Your task to perform on an android device: open sync settings in chrome Image 0: 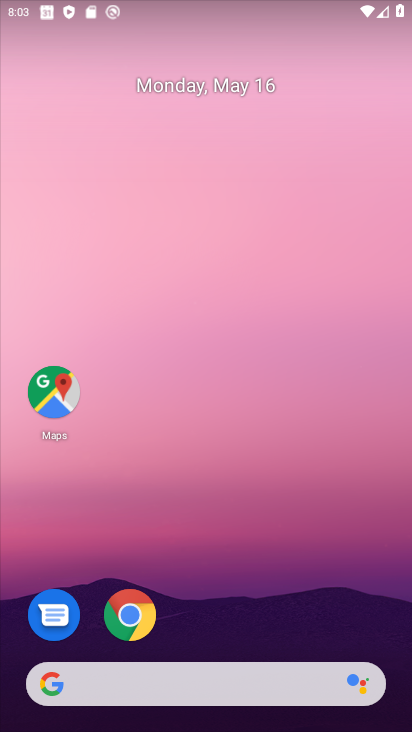
Step 0: drag from (222, 597) to (217, 90)
Your task to perform on an android device: open sync settings in chrome Image 1: 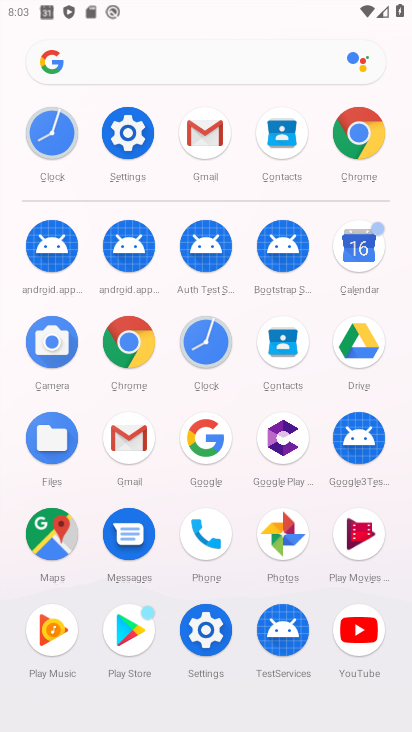
Step 1: click (356, 161)
Your task to perform on an android device: open sync settings in chrome Image 2: 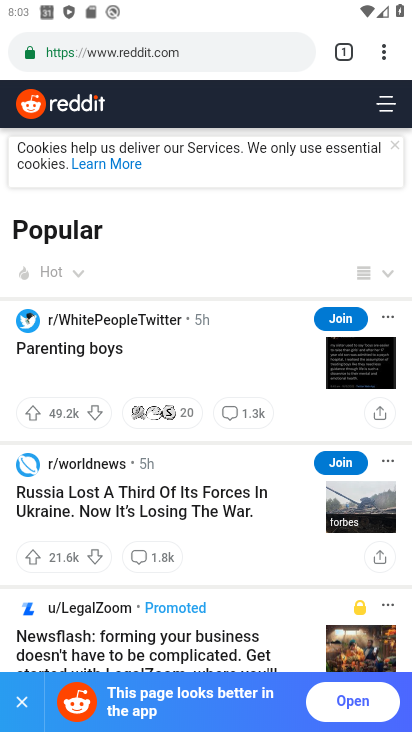
Step 2: click (380, 60)
Your task to perform on an android device: open sync settings in chrome Image 3: 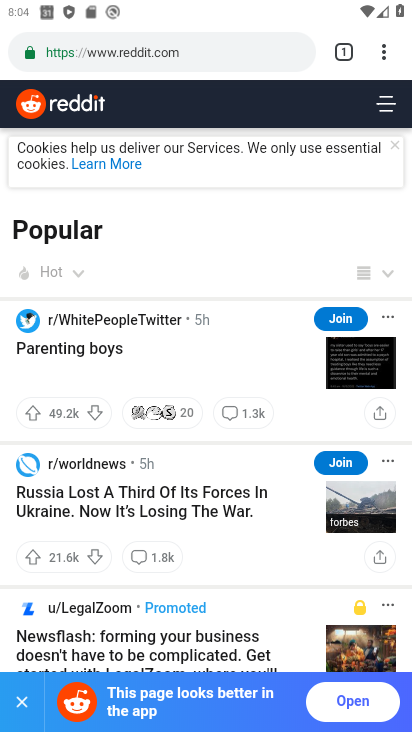
Step 3: click (378, 56)
Your task to perform on an android device: open sync settings in chrome Image 4: 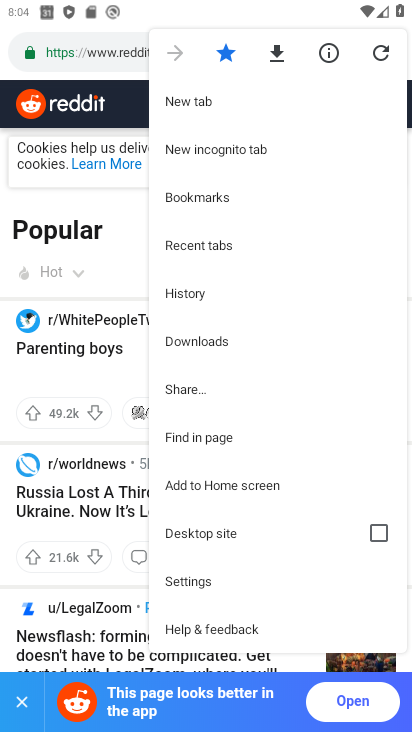
Step 4: click (222, 584)
Your task to perform on an android device: open sync settings in chrome Image 5: 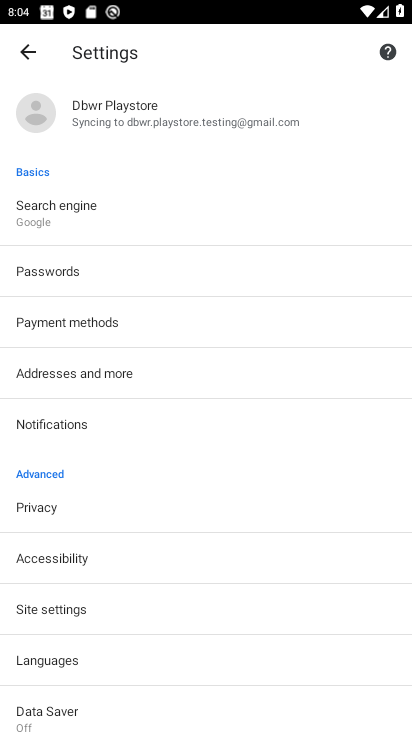
Step 5: drag from (116, 485) to (152, 244)
Your task to perform on an android device: open sync settings in chrome Image 6: 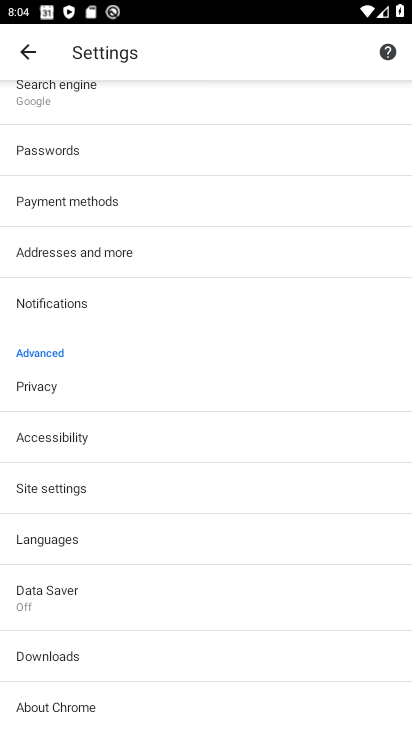
Step 6: drag from (152, 241) to (107, 531)
Your task to perform on an android device: open sync settings in chrome Image 7: 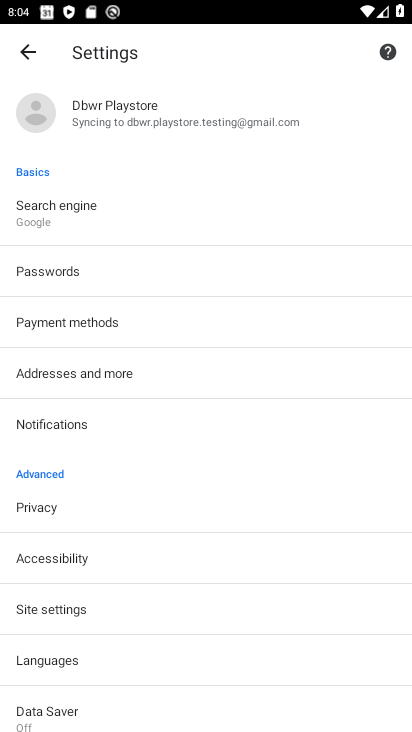
Step 7: click (215, 117)
Your task to perform on an android device: open sync settings in chrome Image 8: 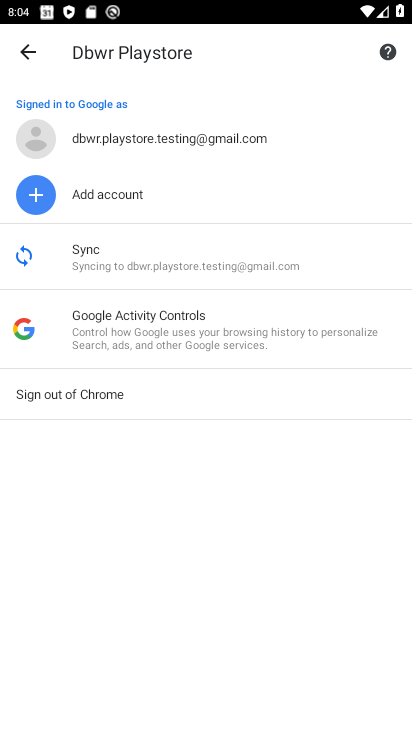
Step 8: click (158, 270)
Your task to perform on an android device: open sync settings in chrome Image 9: 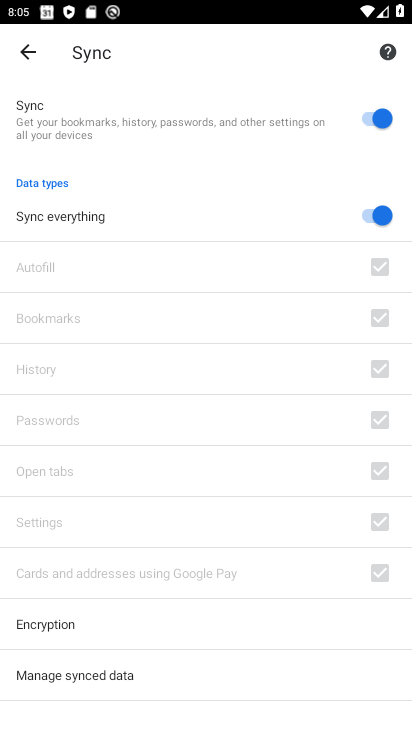
Step 9: task complete